Your task to perform on an android device: set default search engine in the chrome app Image 0: 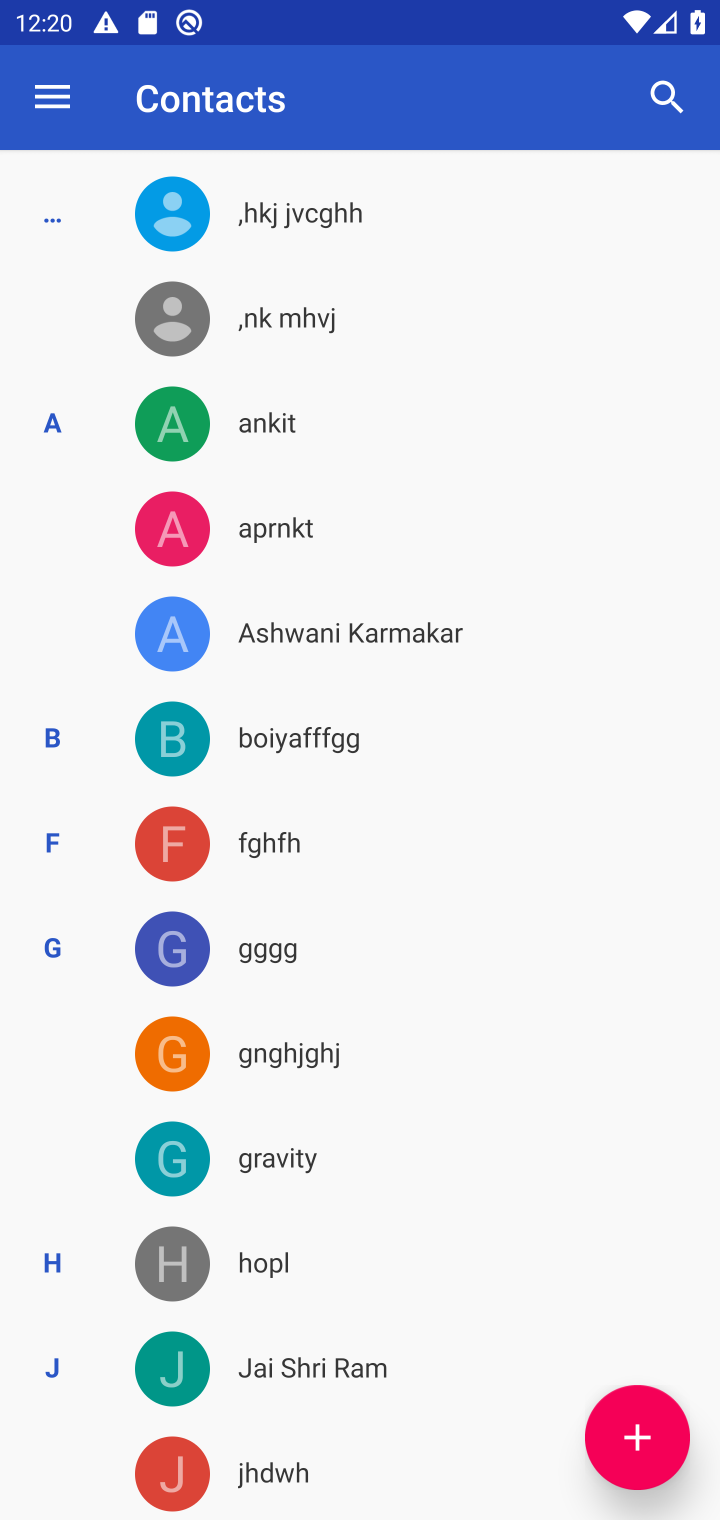
Step 0: press home button
Your task to perform on an android device: set default search engine in the chrome app Image 1: 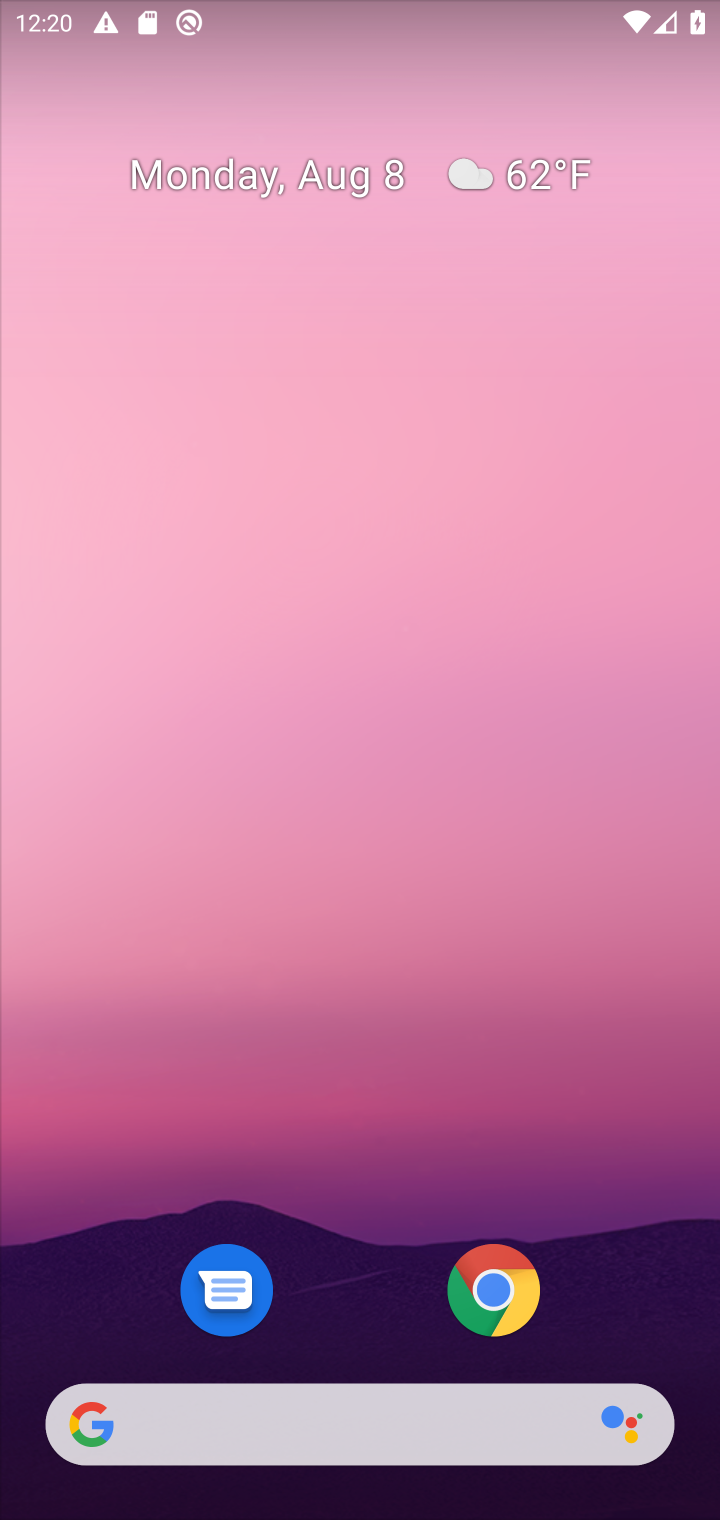
Step 1: click (488, 1327)
Your task to perform on an android device: set default search engine in the chrome app Image 2: 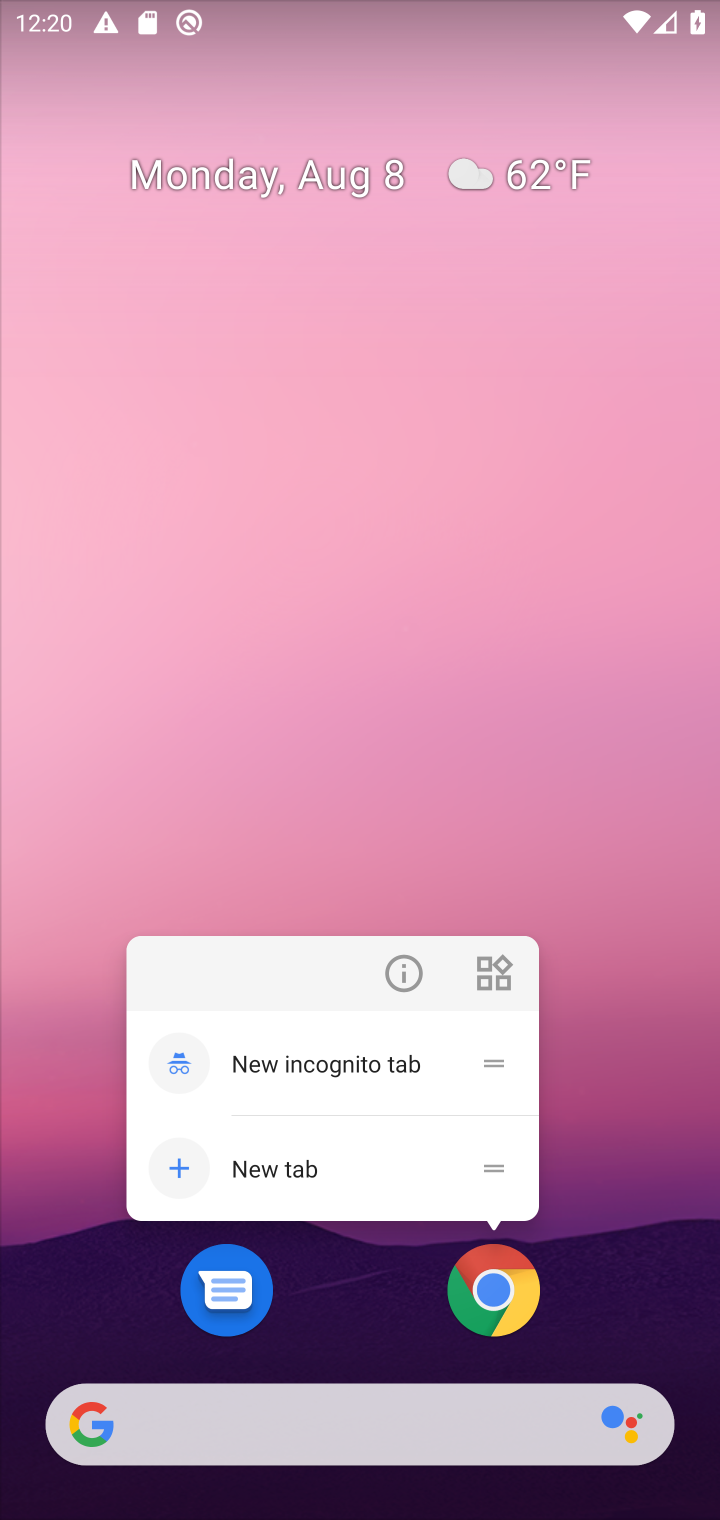
Step 2: click (508, 1266)
Your task to perform on an android device: set default search engine in the chrome app Image 3: 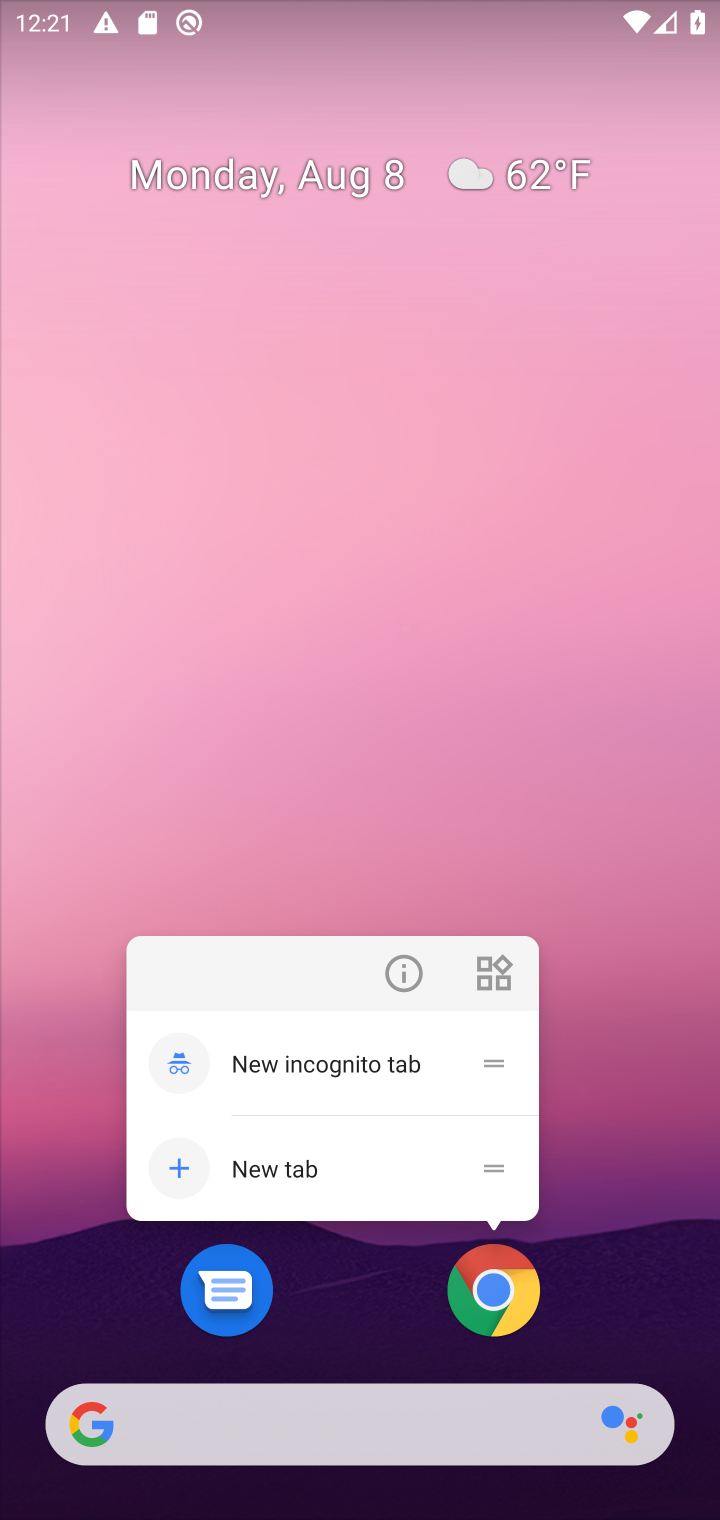
Step 3: click (493, 1292)
Your task to perform on an android device: set default search engine in the chrome app Image 4: 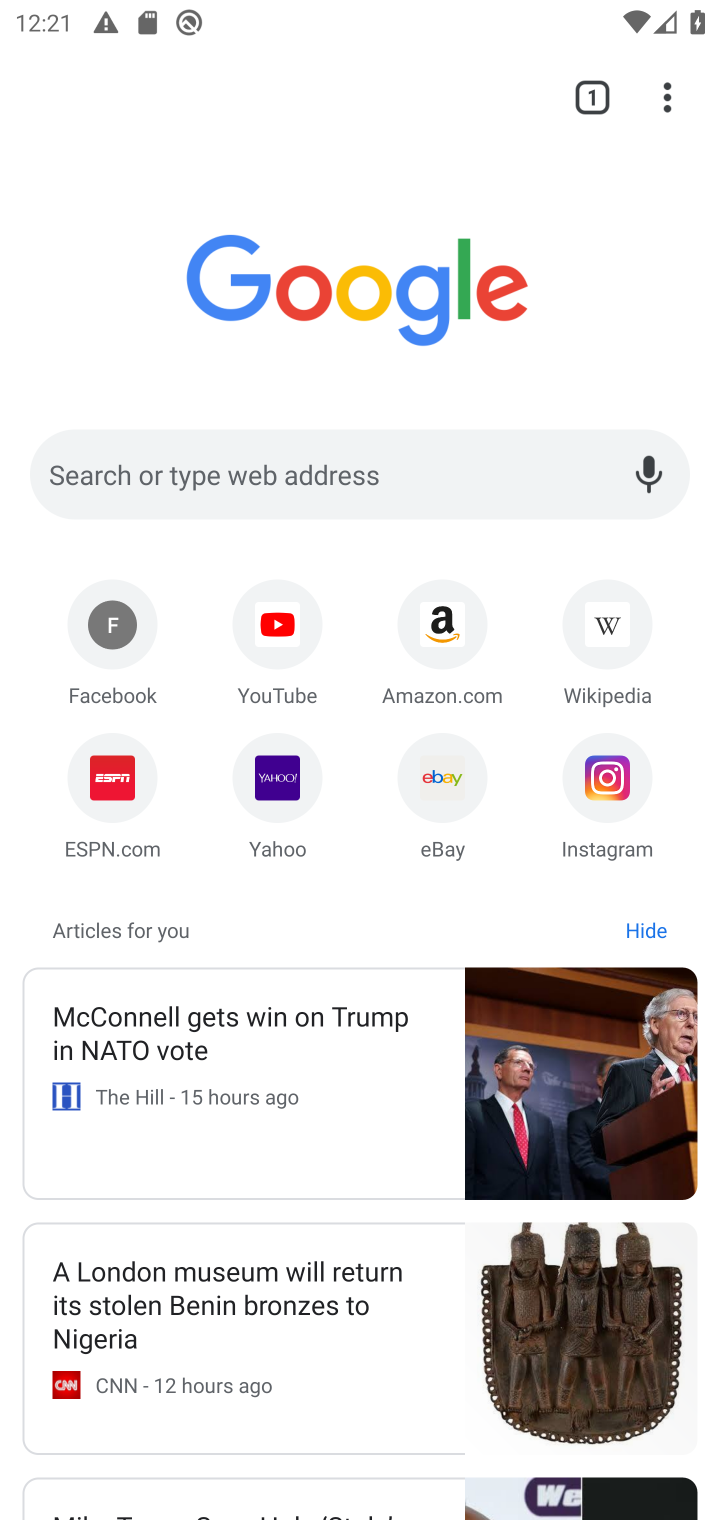
Step 4: click (673, 101)
Your task to perform on an android device: set default search engine in the chrome app Image 5: 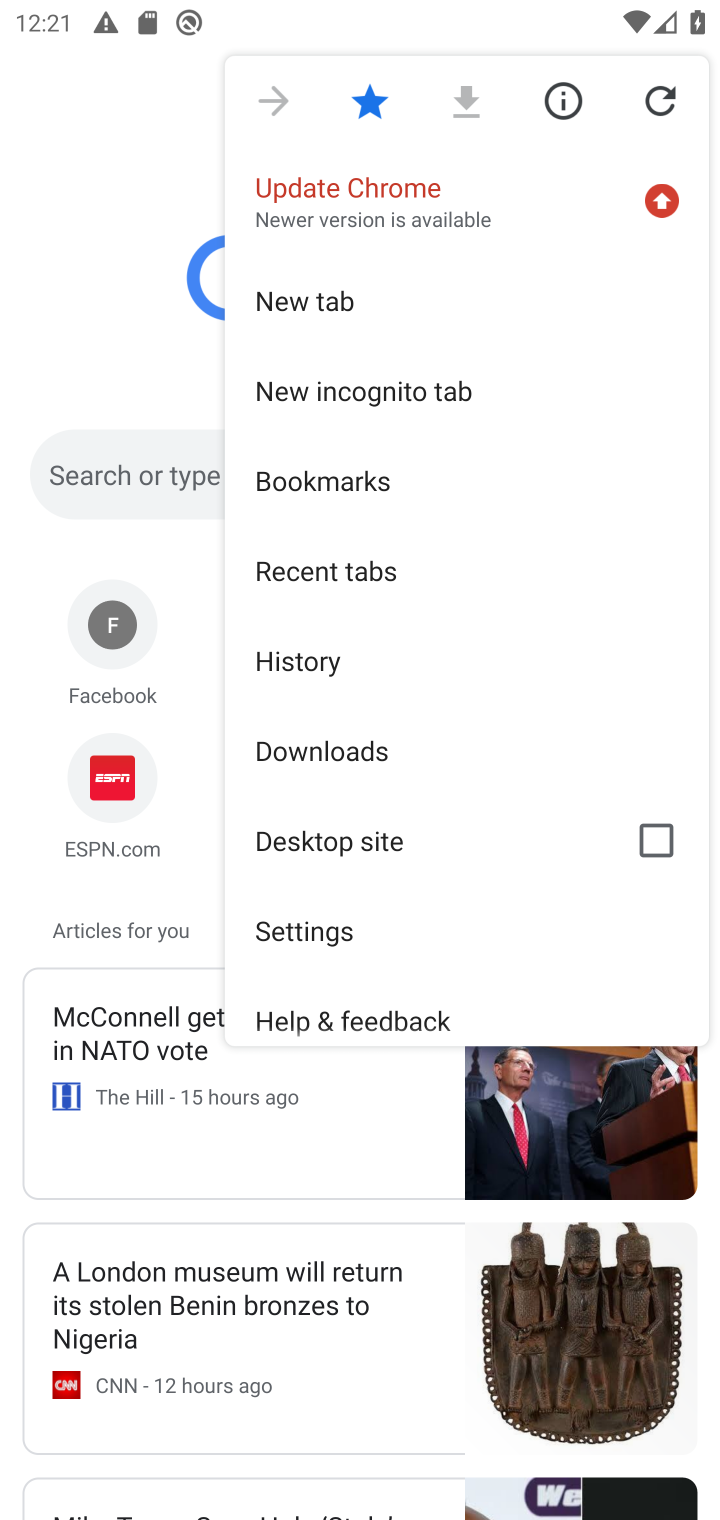
Step 5: click (321, 939)
Your task to perform on an android device: set default search engine in the chrome app Image 6: 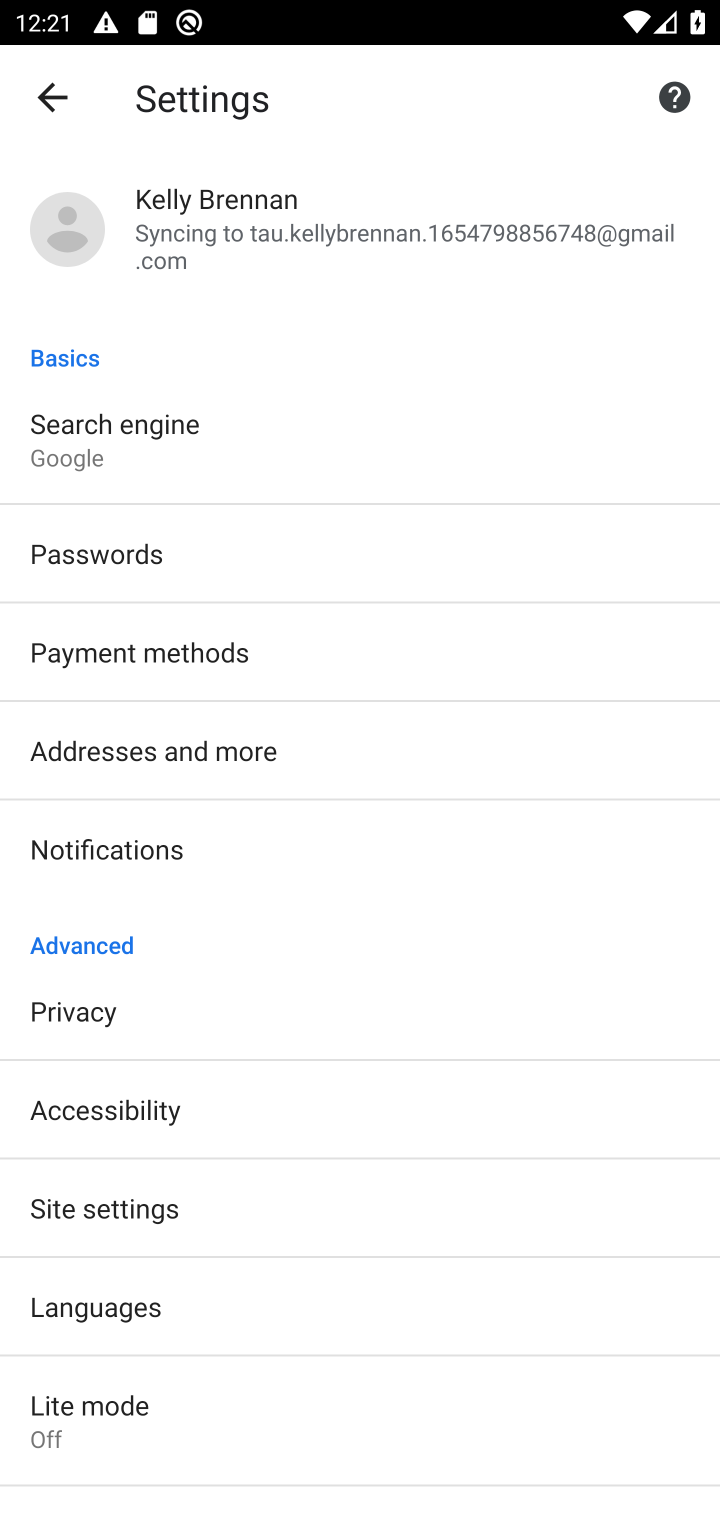
Step 6: click (159, 460)
Your task to perform on an android device: set default search engine in the chrome app Image 7: 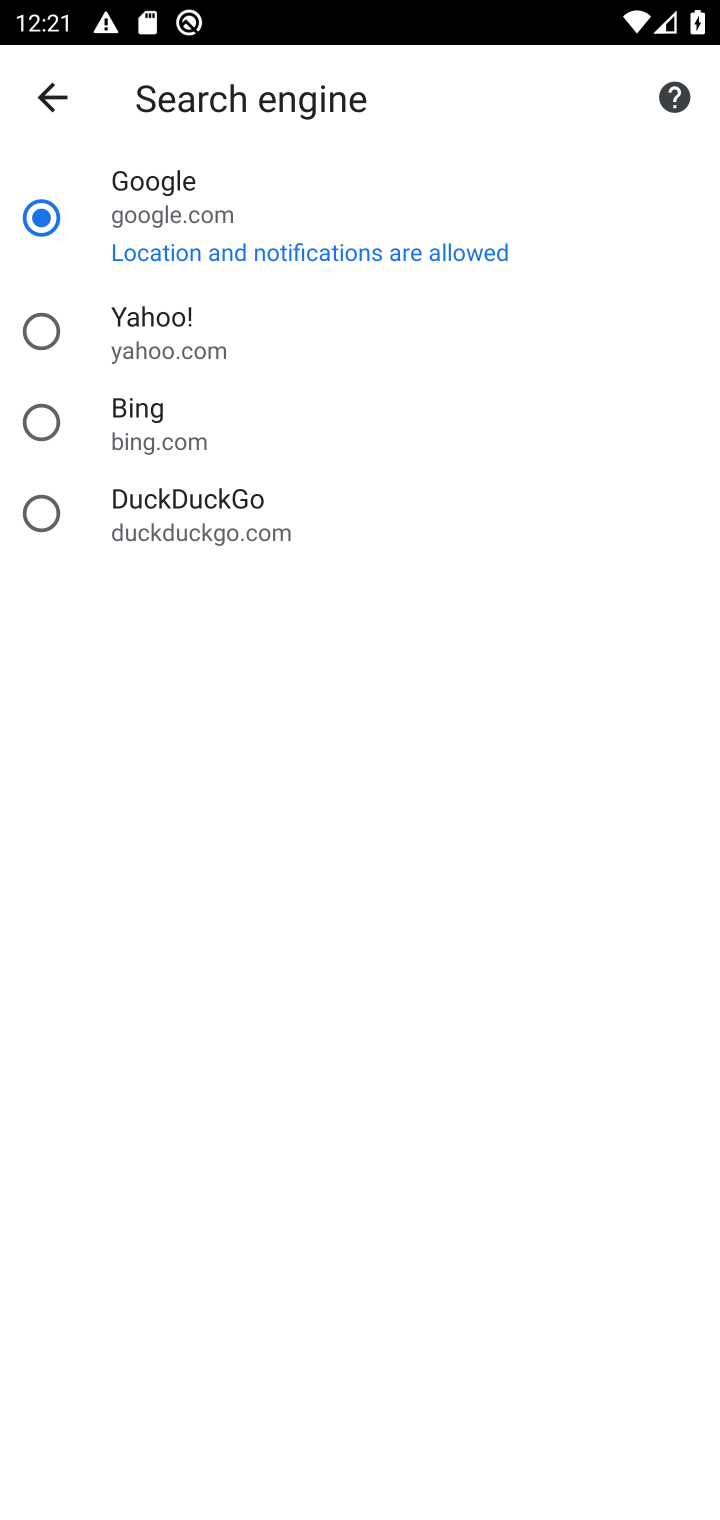
Step 7: click (183, 248)
Your task to perform on an android device: set default search engine in the chrome app Image 8: 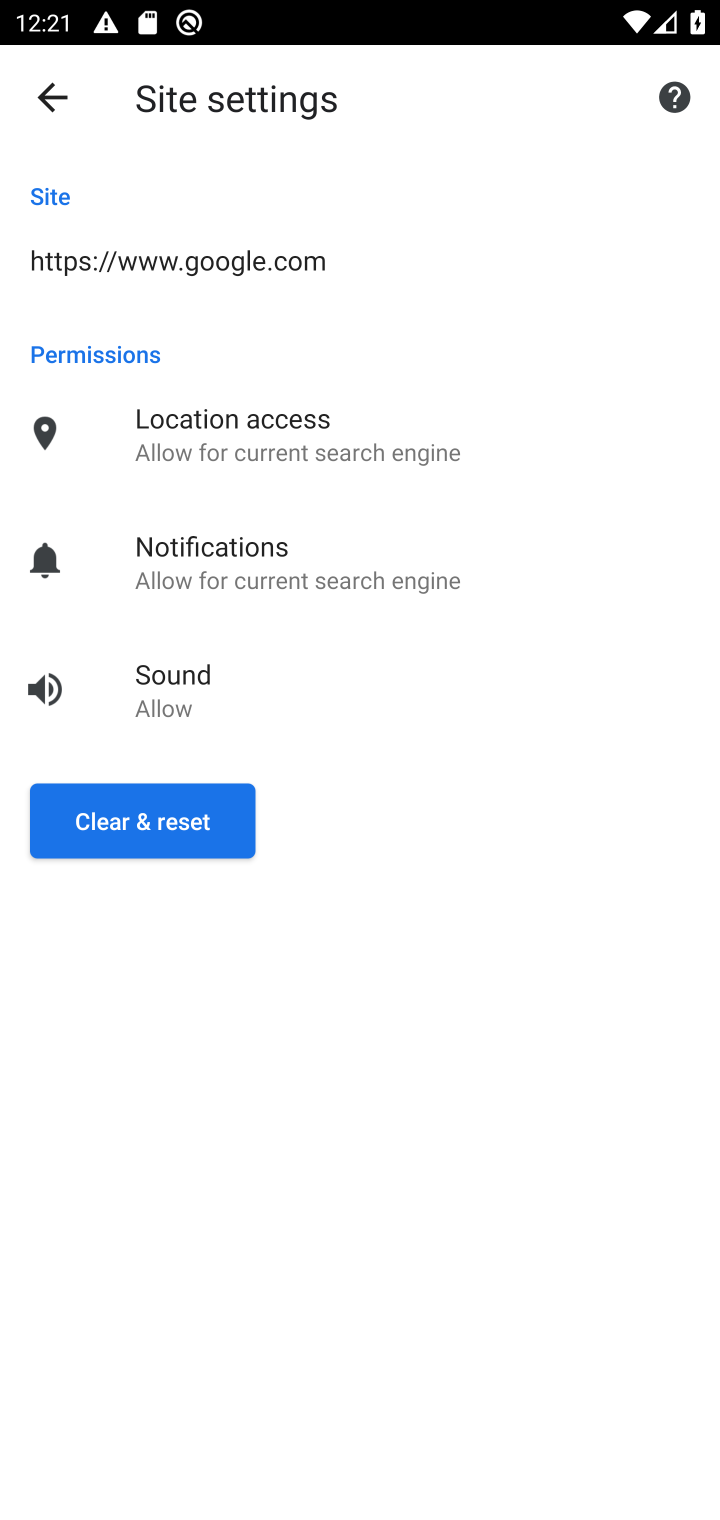
Step 8: click (144, 806)
Your task to perform on an android device: set default search engine in the chrome app Image 9: 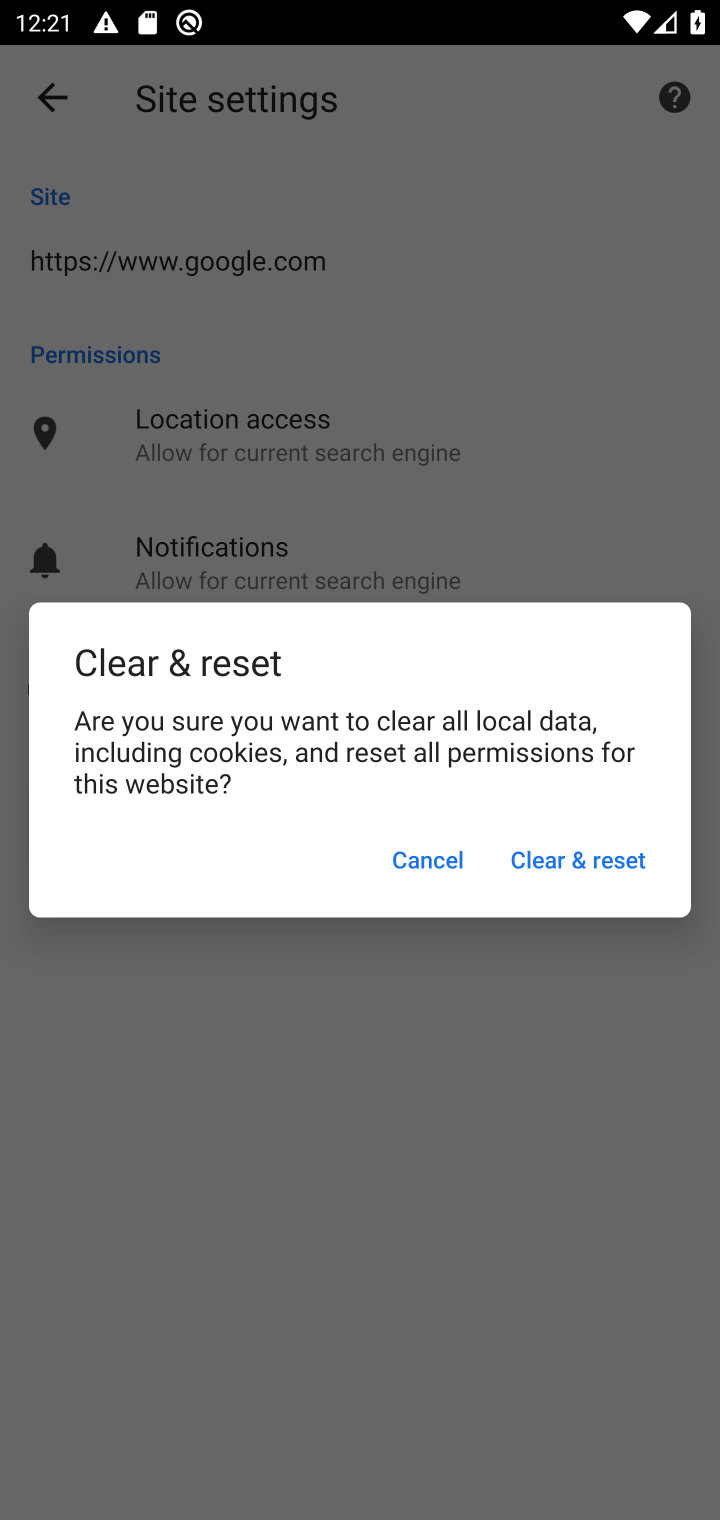
Step 9: click (621, 855)
Your task to perform on an android device: set default search engine in the chrome app Image 10: 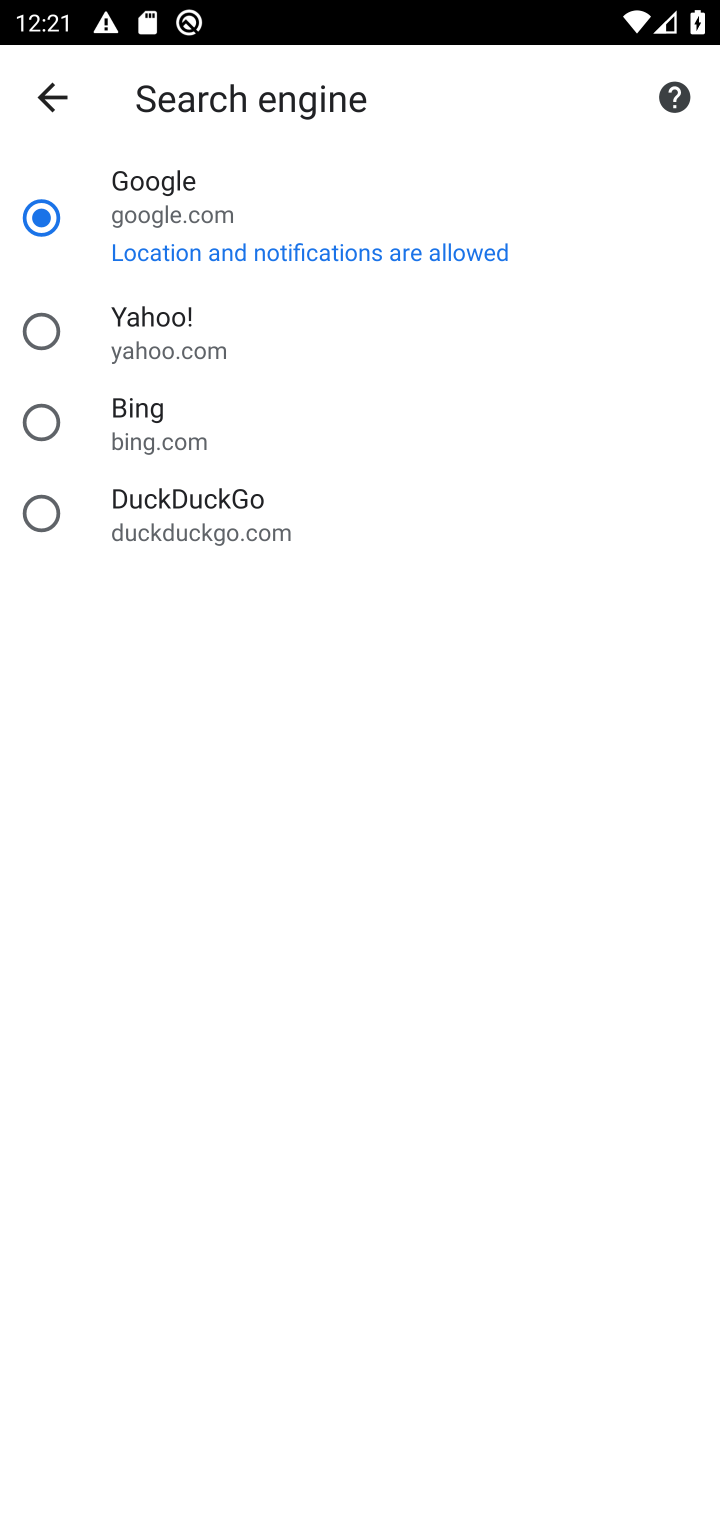
Step 10: task complete